Your task to perform on an android device: turn pop-ups off in chrome Image 0: 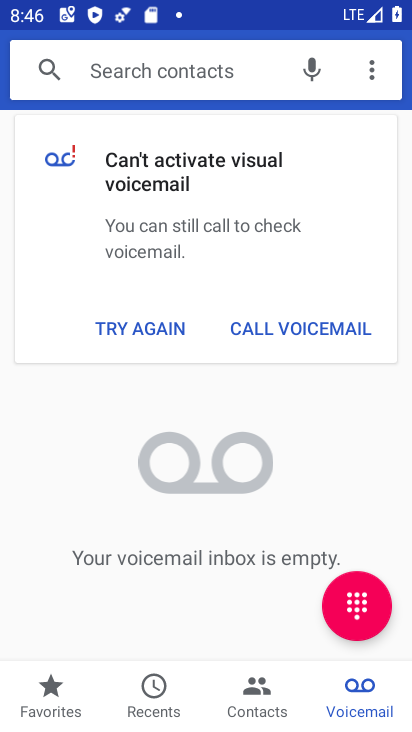
Step 0: press home button
Your task to perform on an android device: turn pop-ups off in chrome Image 1: 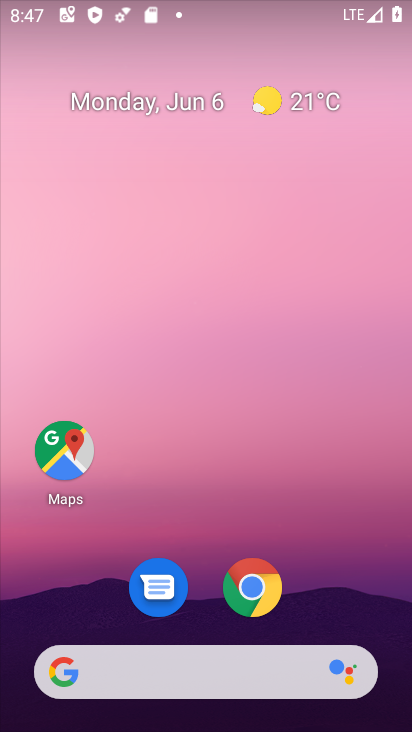
Step 1: click (247, 598)
Your task to perform on an android device: turn pop-ups off in chrome Image 2: 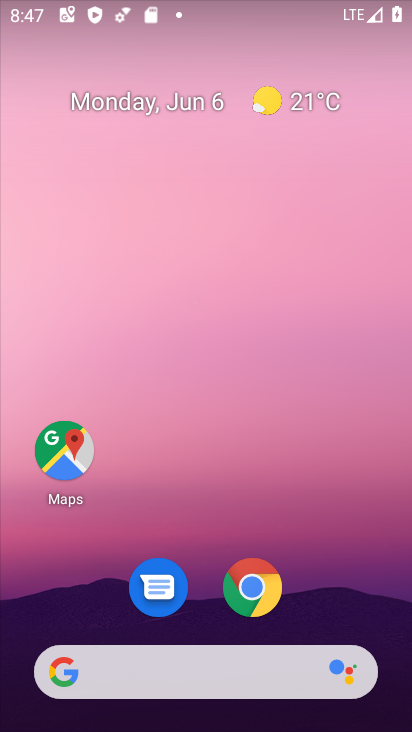
Step 2: click (247, 598)
Your task to perform on an android device: turn pop-ups off in chrome Image 3: 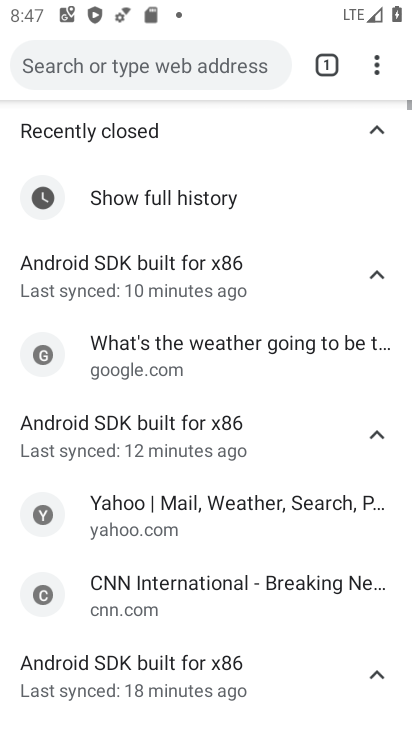
Step 3: click (373, 64)
Your task to perform on an android device: turn pop-ups off in chrome Image 4: 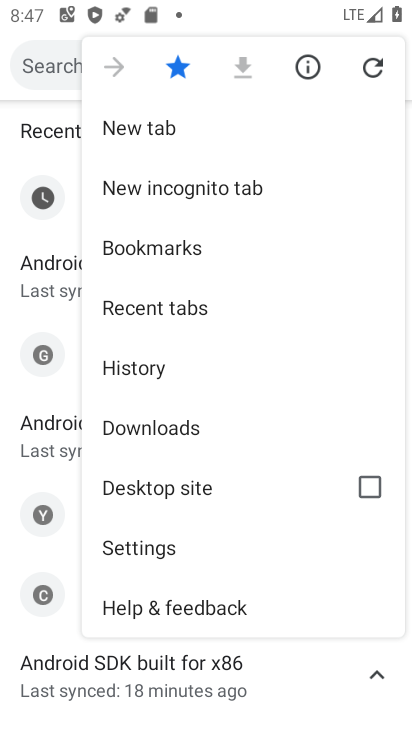
Step 4: click (166, 555)
Your task to perform on an android device: turn pop-ups off in chrome Image 5: 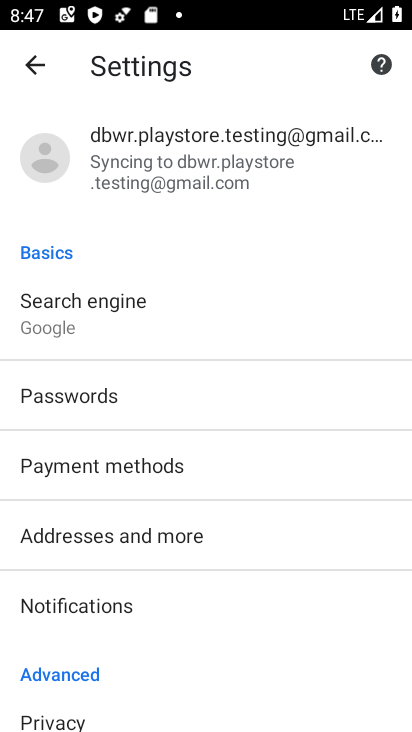
Step 5: drag from (344, 554) to (254, 76)
Your task to perform on an android device: turn pop-ups off in chrome Image 6: 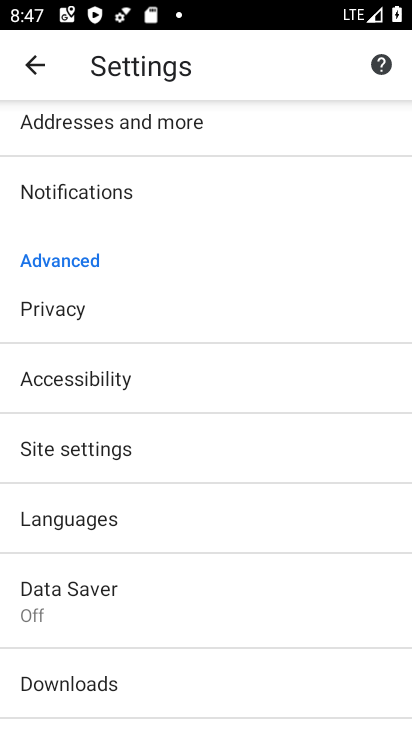
Step 6: click (152, 454)
Your task to perform on an android device: turn pop-ups off in chrome Image 7: 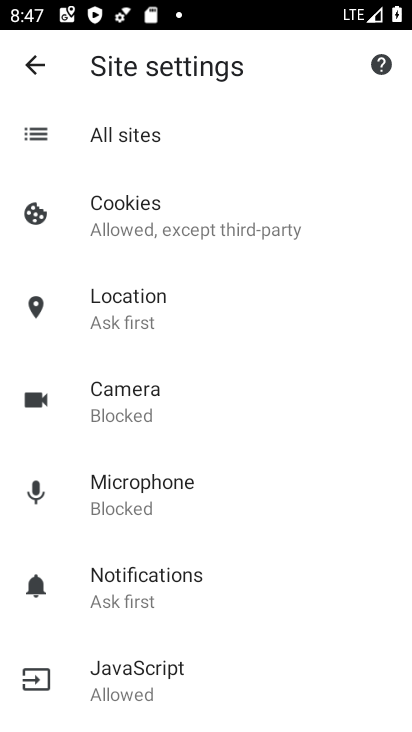
Step 7: drag from (270, 662) to (376, 16)
Your task to perform on an android device: turn pop-ups off in chrome Image 8: 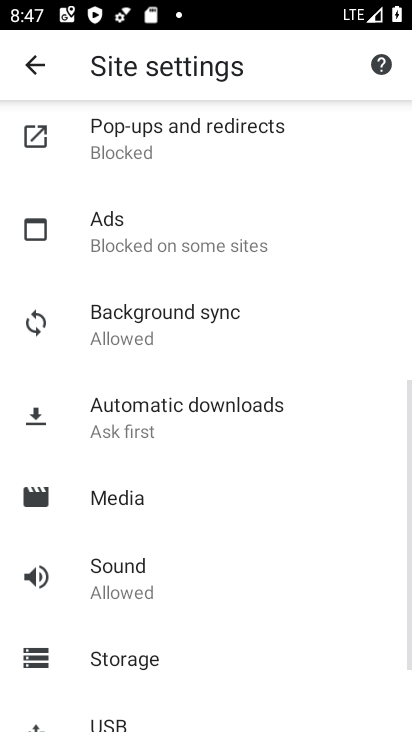
Step 8: click (238, 143)
Your task to perform on an android device: turn pop-ups off in chrome Image 9: 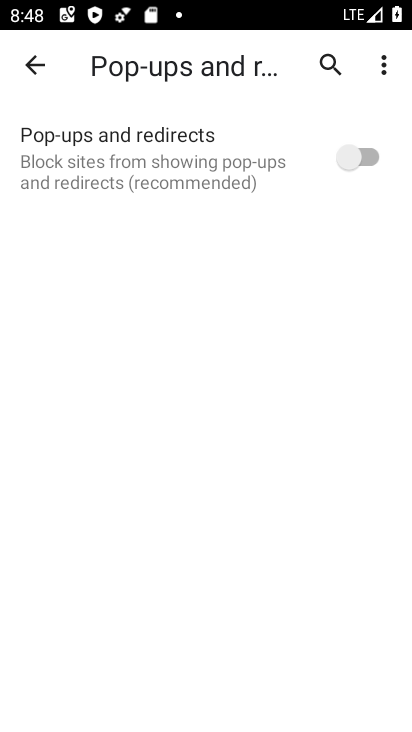
Step 9: task complete